Your task to perform on an android device: clear history in the chrome app Image 0: 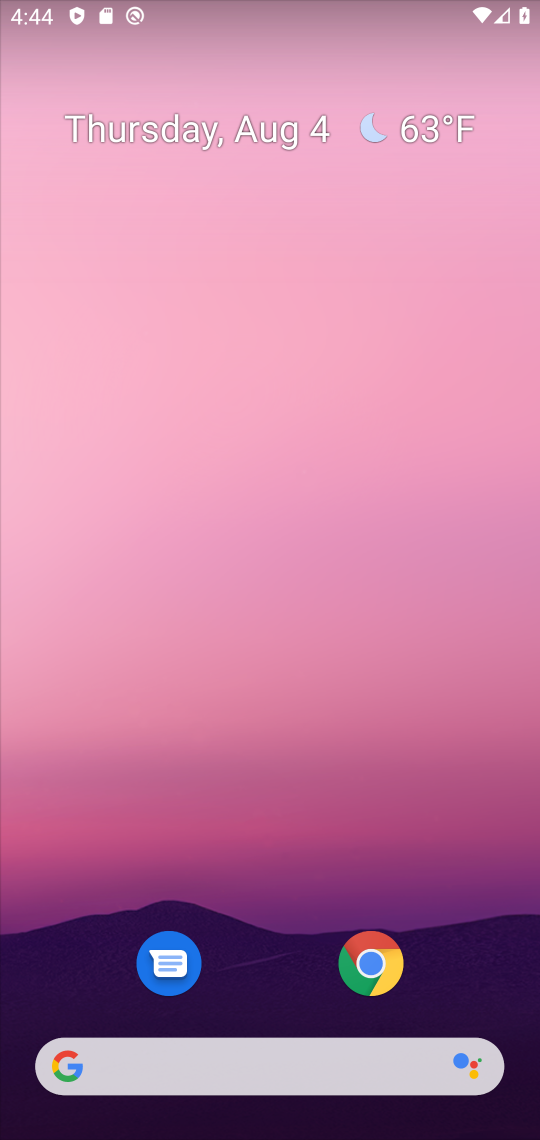
Step 0: click (370, 966)
Your task to perform on an android device: clear history in the chrome app Image 1: 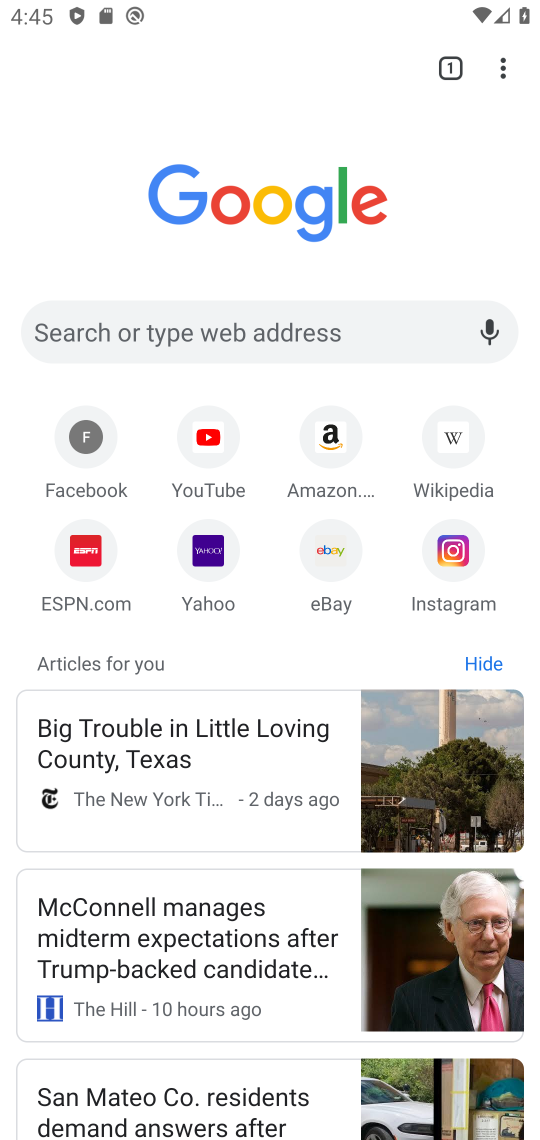
Step 1: click (509, 64)
Your task to perform on an android device: clear history in the chrome app Image 2: 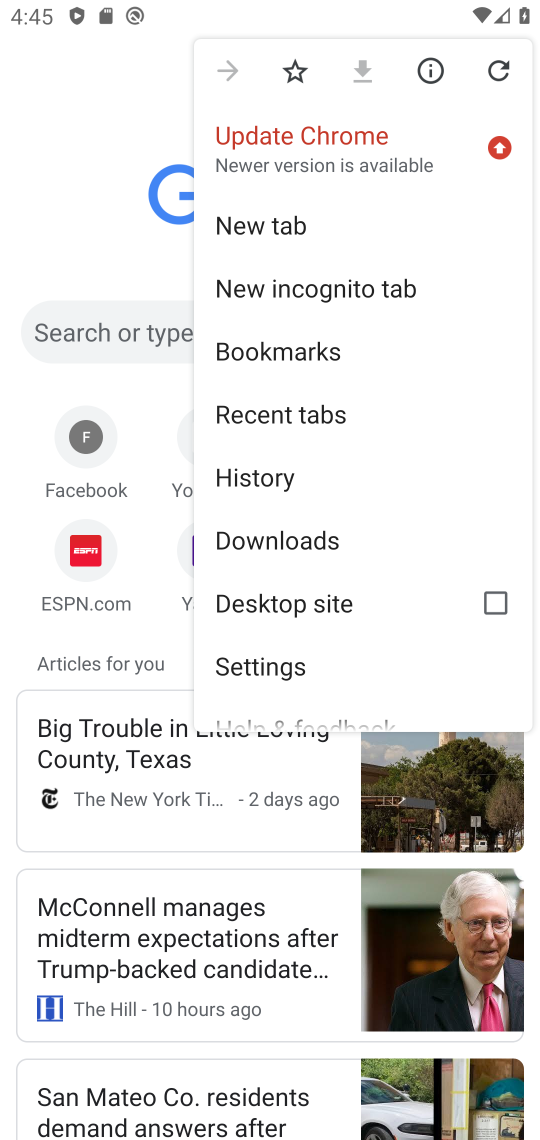
Step 2: click (267, 470)
Your task to perform on an android device: clear history in the chrome app Image 3: 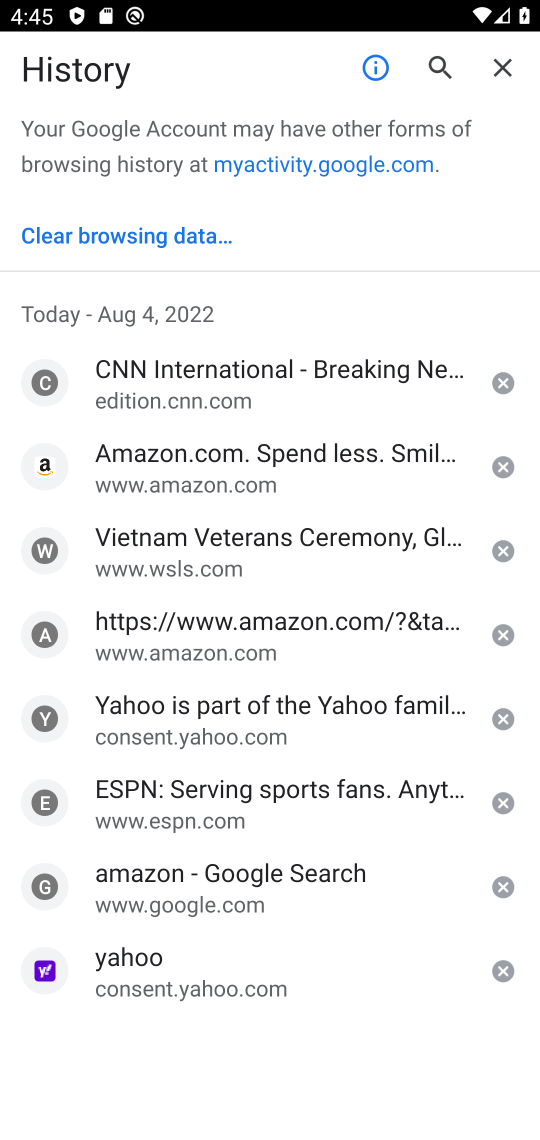
Step 3: click (134, 234)
Your task to perform on an android device: clear history in the chrome app Image 4: 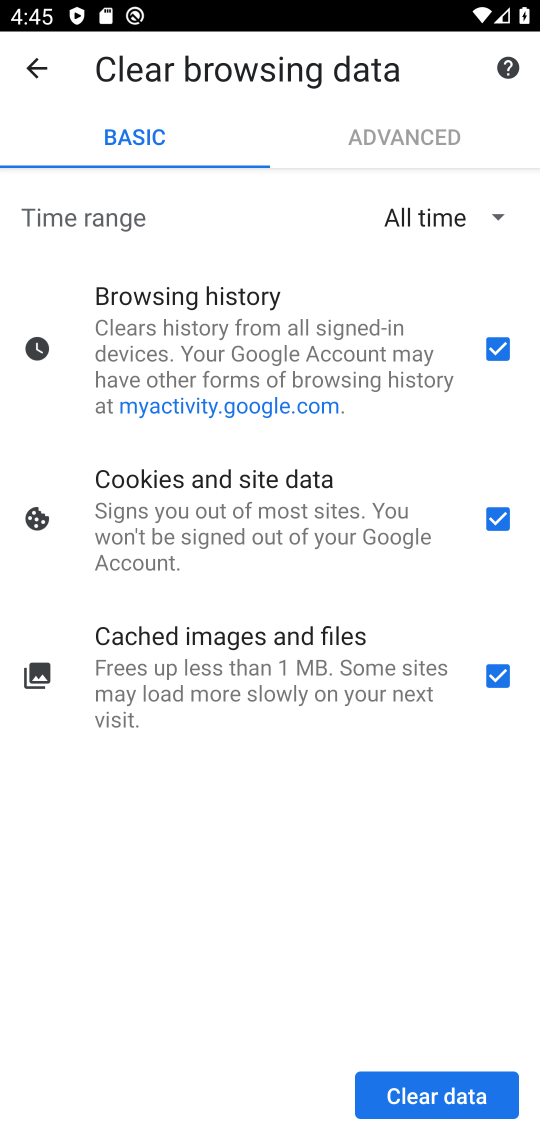
Step 4: click (499, 515)
Your task to perform on an android device: clear history in the chrome app Image 5: 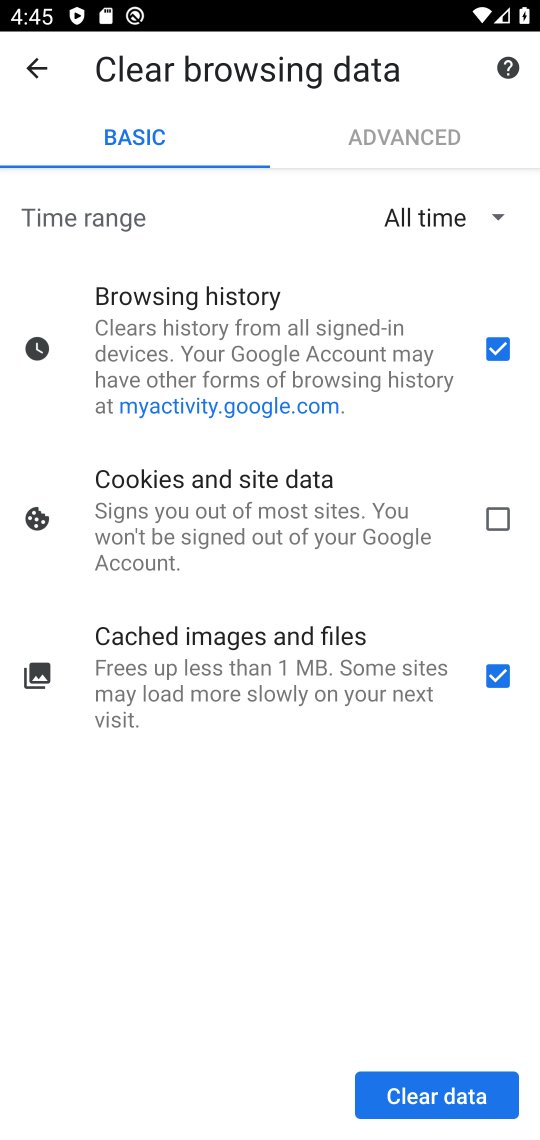
Step 5: click (499, 674)
Your task to perform on an android device: clear history in the chrome app Image 6: 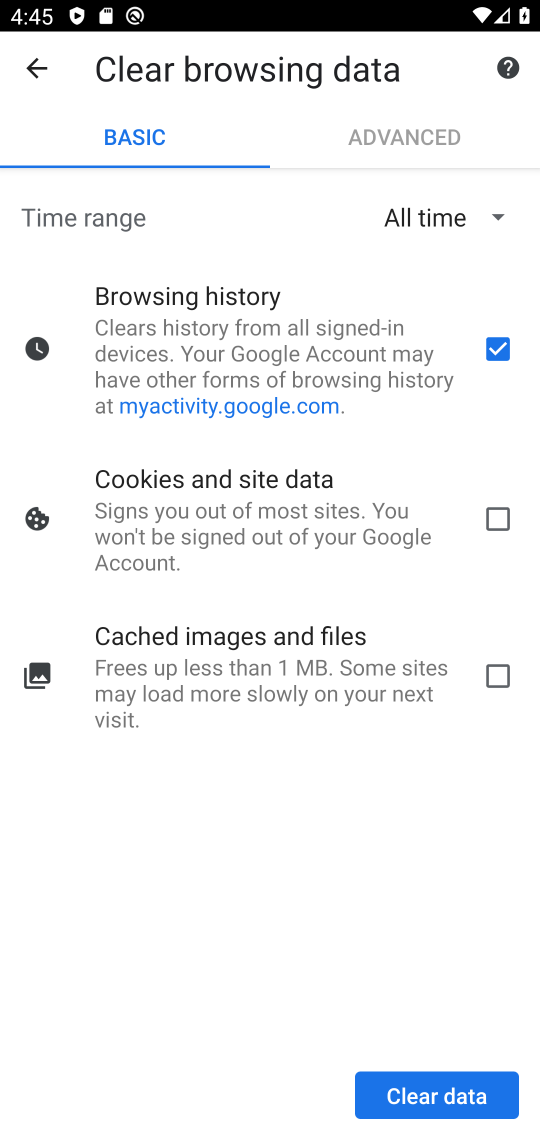
Step 6: click (439, 1098)
Your task to perform on an android device: clear history in the chrome app Image 7: 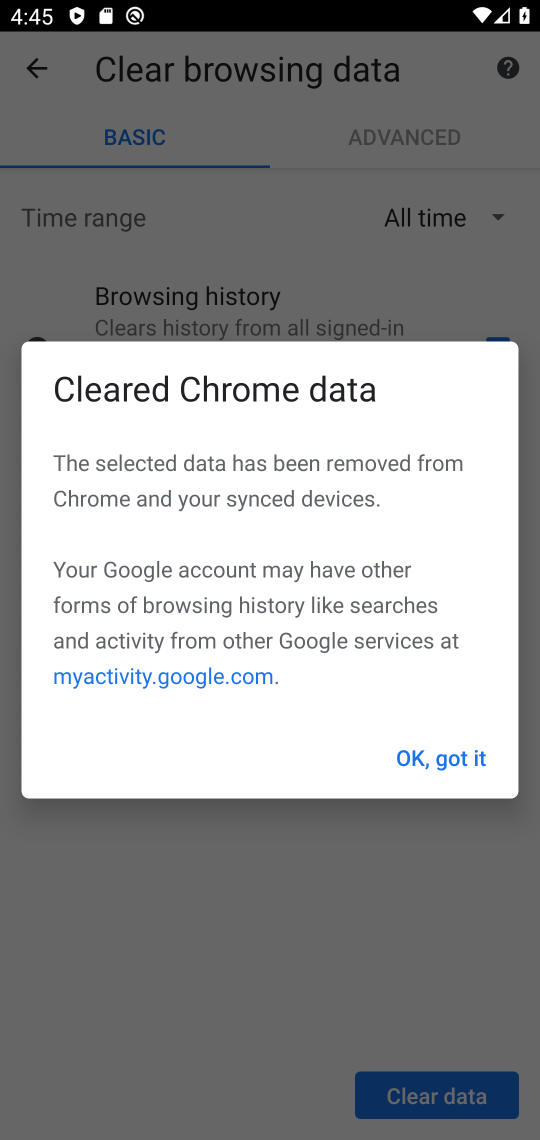
Step 7: click (434, 748)
Your task to perform on an android device: clear history in the chrome app Image 8: 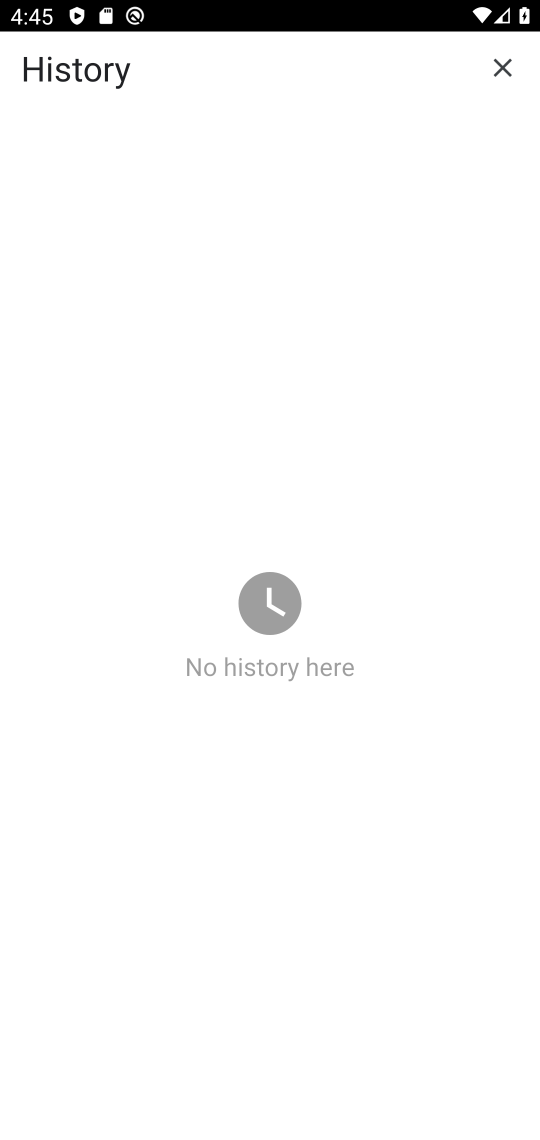
Step 8: task complete